Your task to perform on an android device: Check the news Image 0: 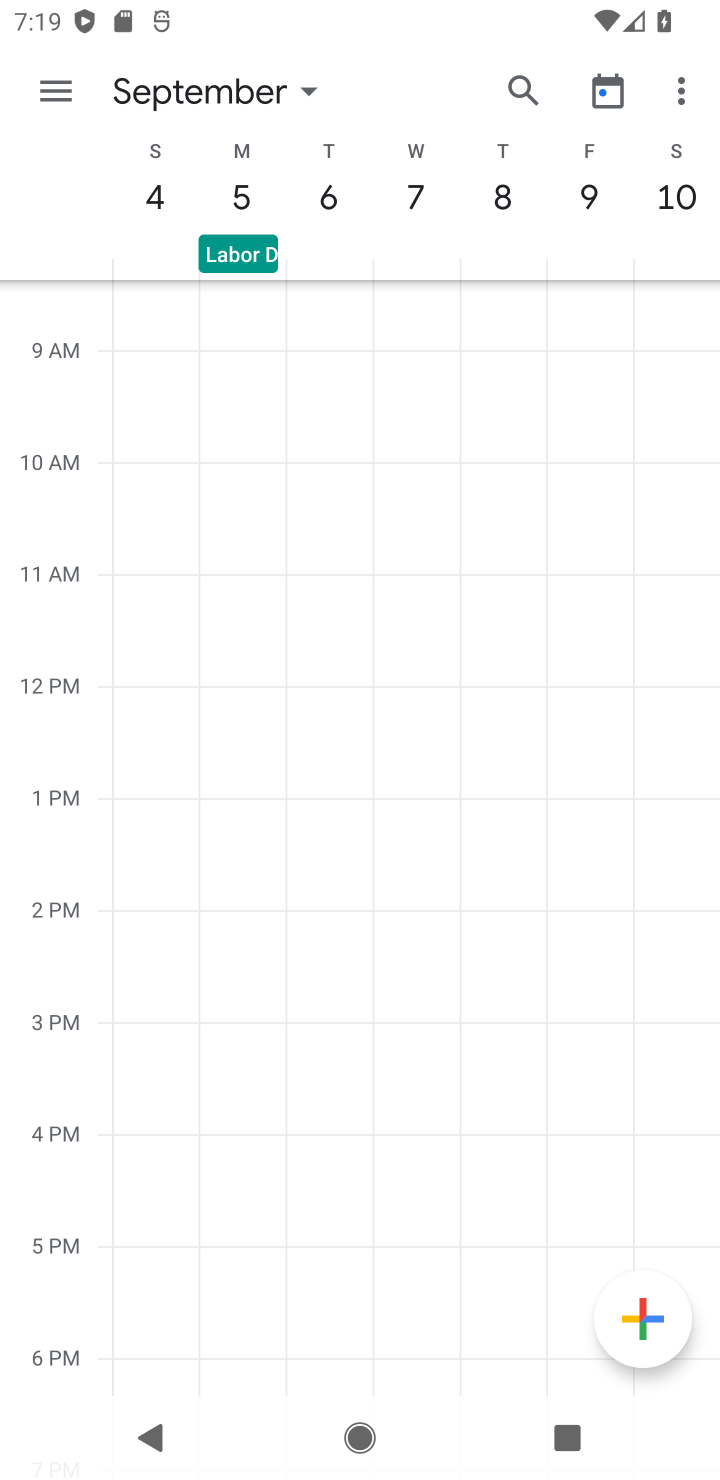
Step 0: press home button
Your task to perform on an android device: Check the news Image 1: 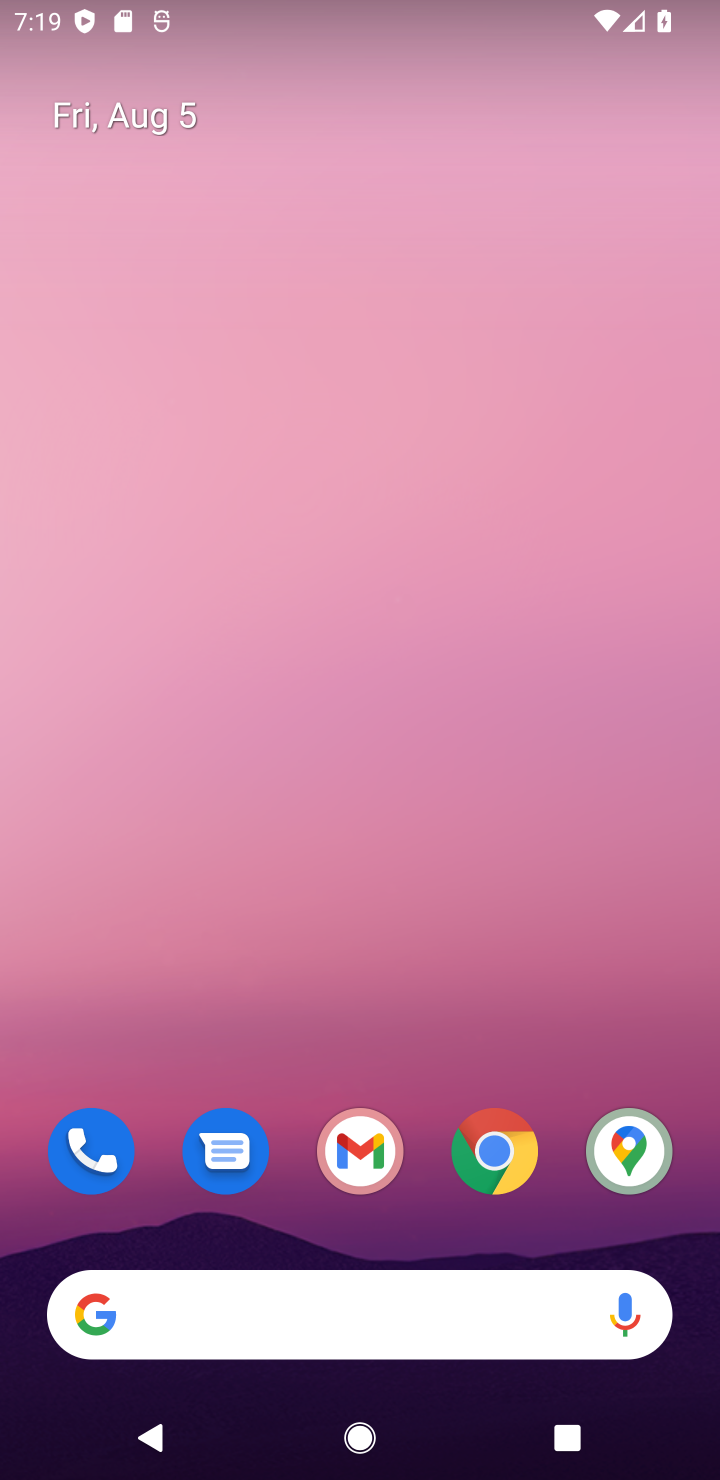
Step 1: click (347, 1298)
Your task to perform on an android device: Check the news Image 2: 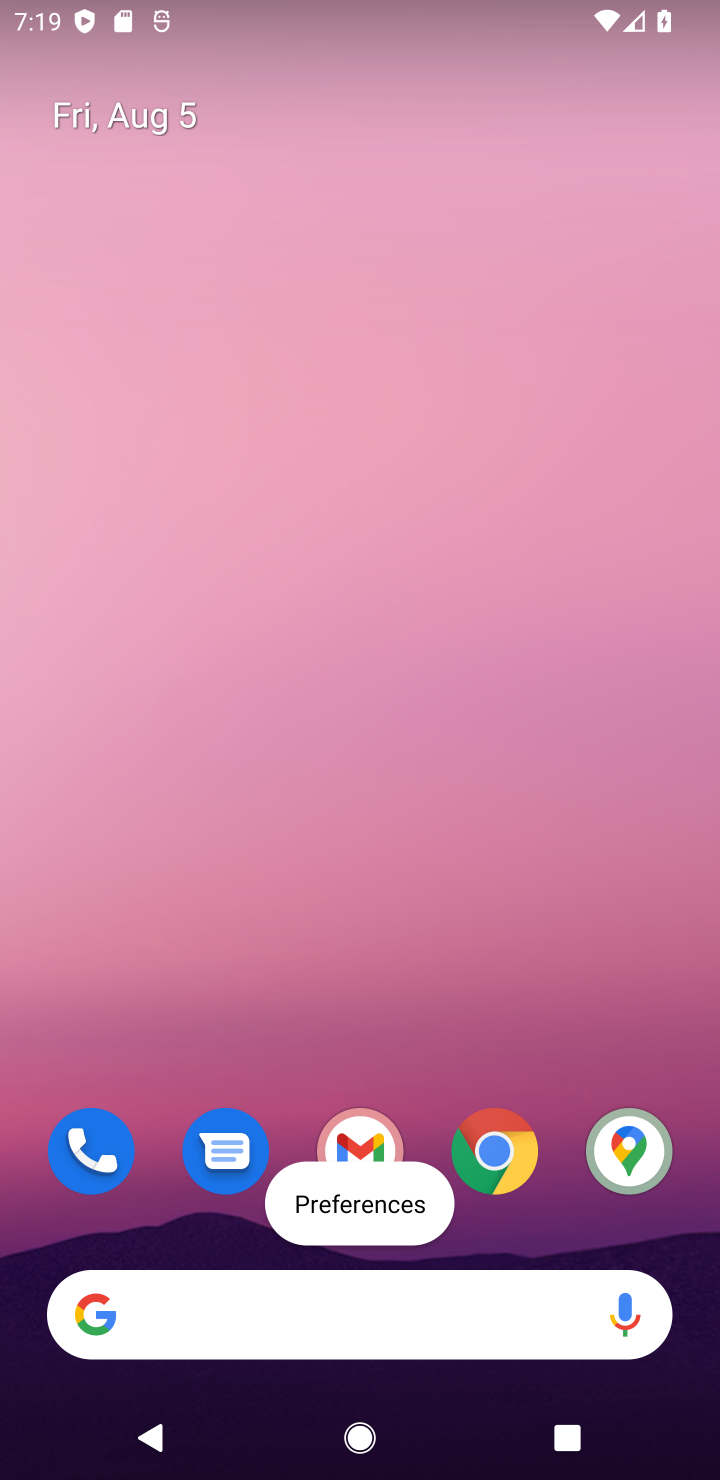
Step 2: click (411, 1289)
Your task to perform on an android device: Check the news Image 3: 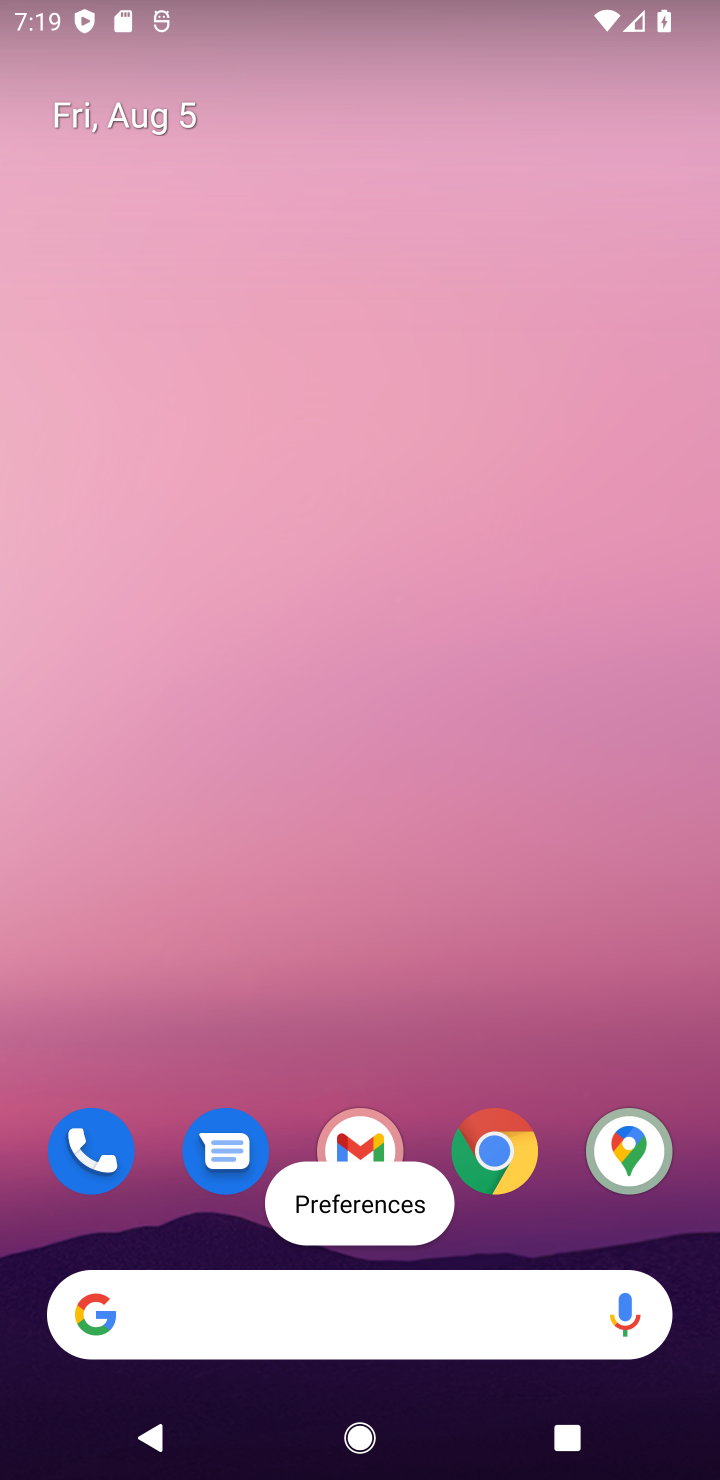
Step 3: click (421, 1314)
Your task to perform on an android device: Check the news Image 4: 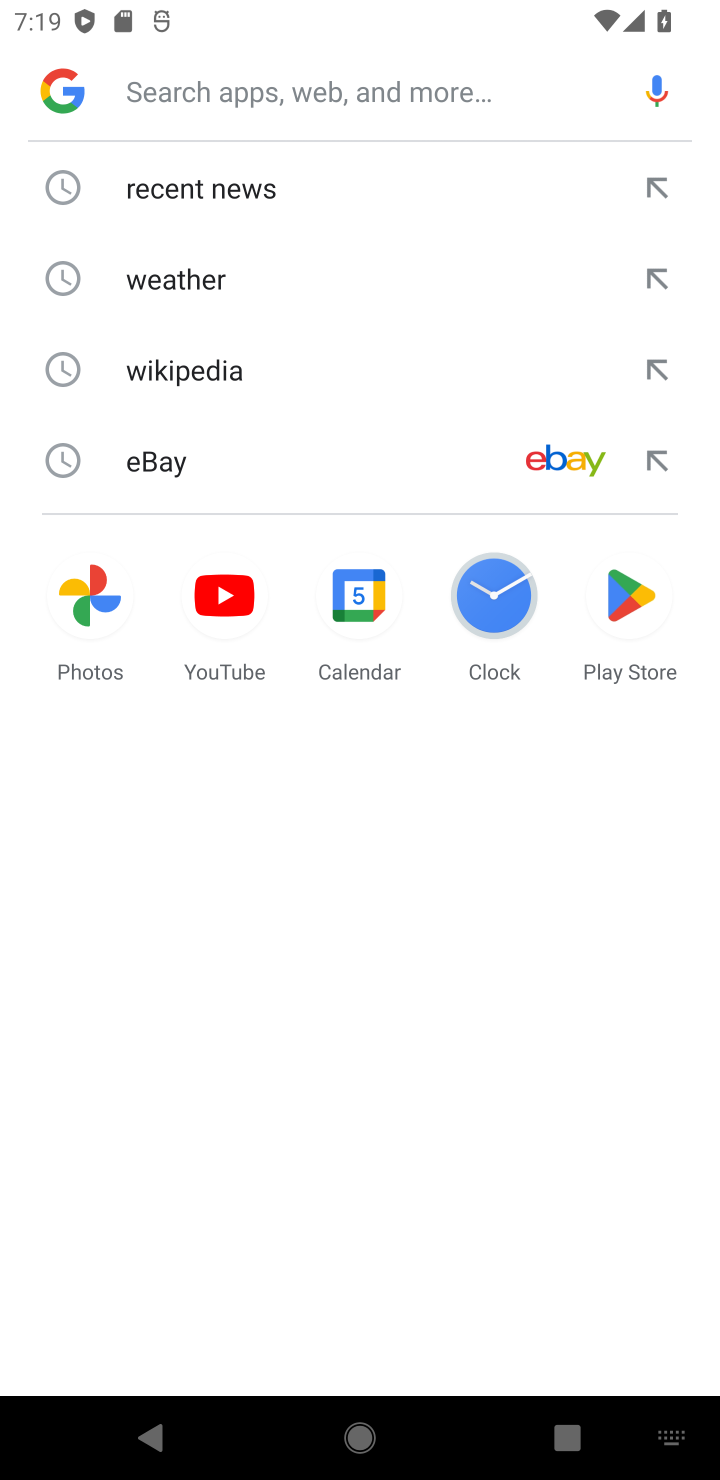
Step 4: click (167, 200)
Your task to perform on an android device: Check the news Image 5: 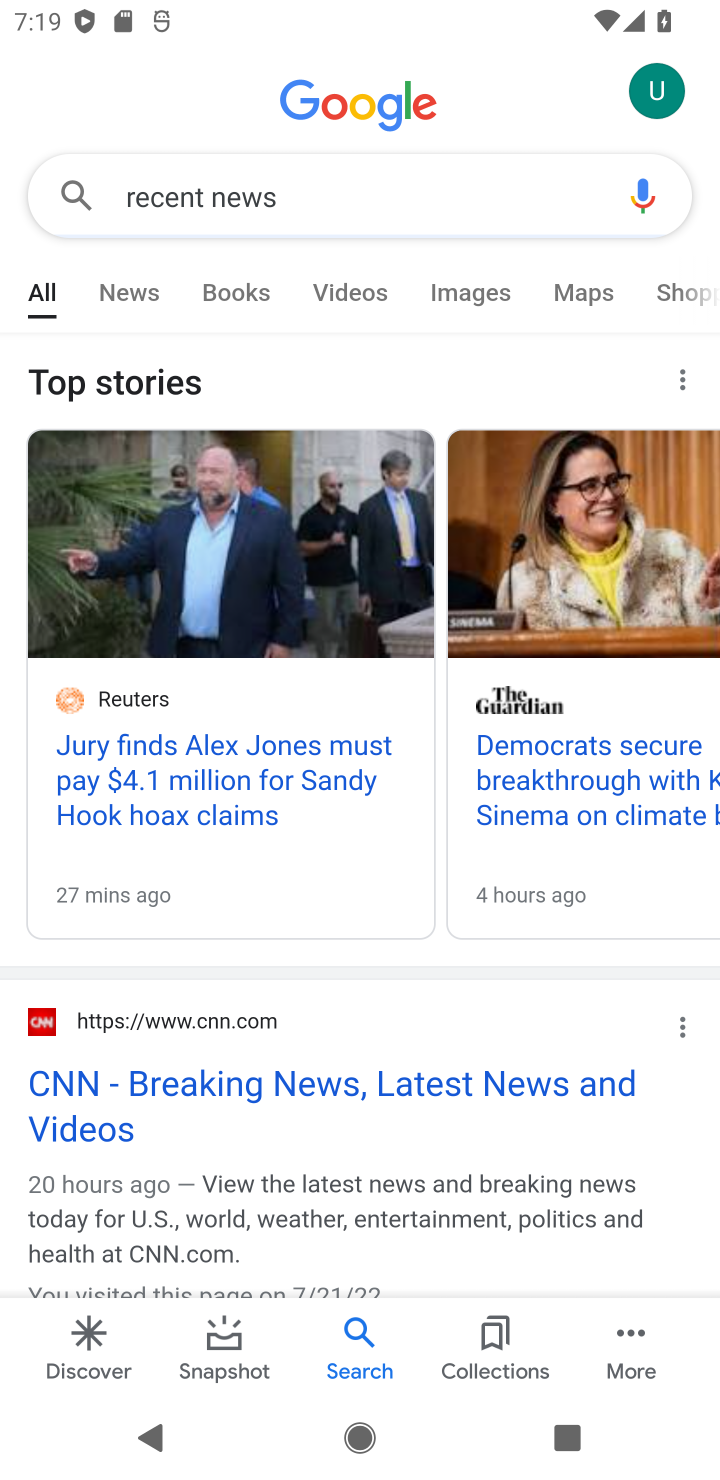
Step 5: task complete